Your task to perform on an android device: turn off location Image 0: 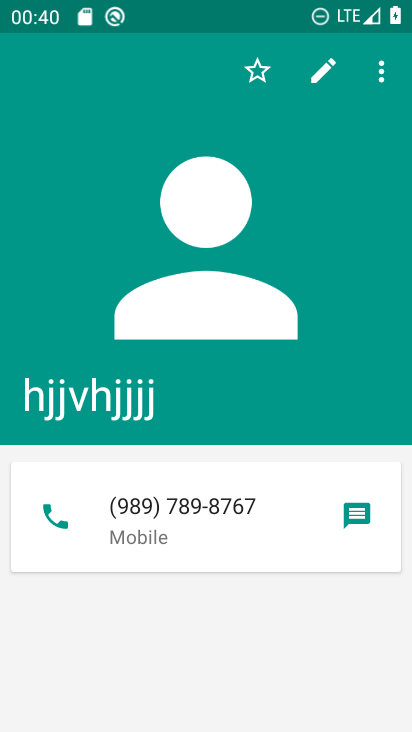
Step 0: press home button
Your task to perform on an android device: turn off location Image 1: 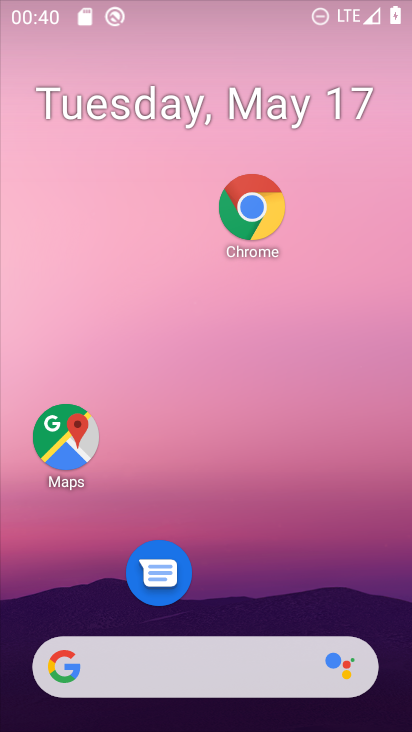
Step 1: drag from (273, 643) to (373, 9)
Your task to perform on an android device: turn off location Image 2: 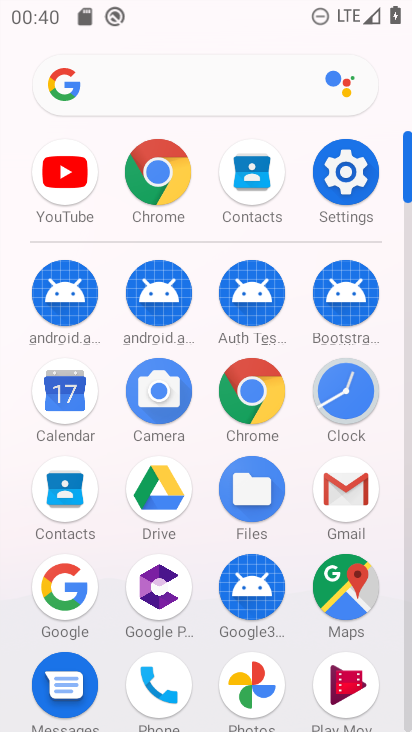
Step 2: click (362, 187)
Your task to perform on an android device: turn off location Image 3: 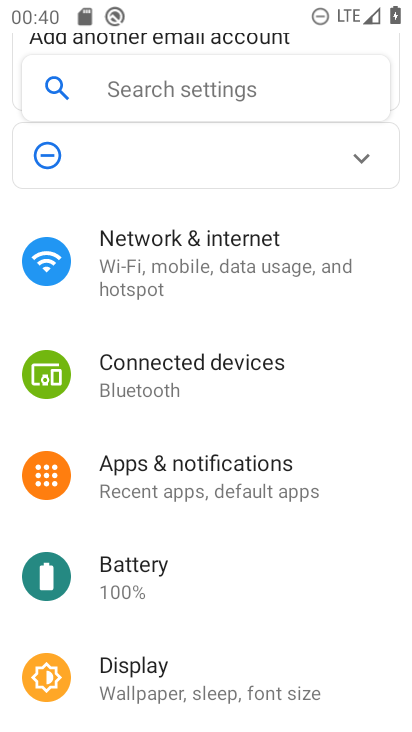
Step 3: drag from (261, 664) to (254, 136)
Your task to perform on an android device: turn off location Image 4: 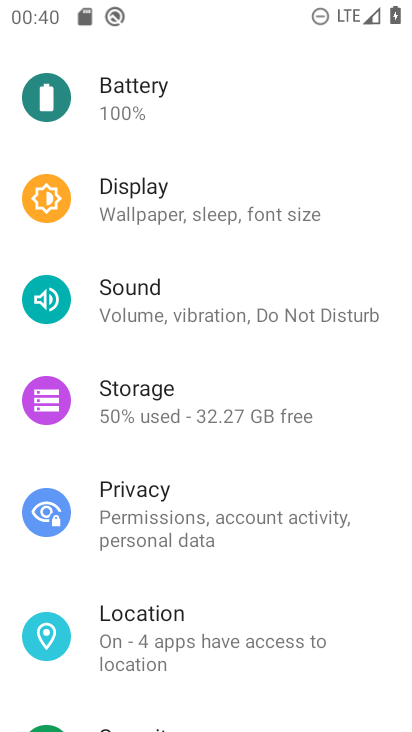
Step 4: click (187, 617)
Your task to perform on an android device: turn off location Image 5: 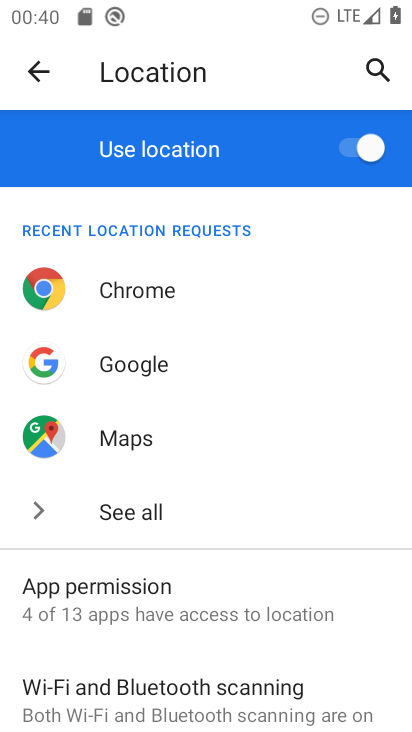
Step 5: click (344, 151)
Your task to perform on an android device: turn off location Image 6: 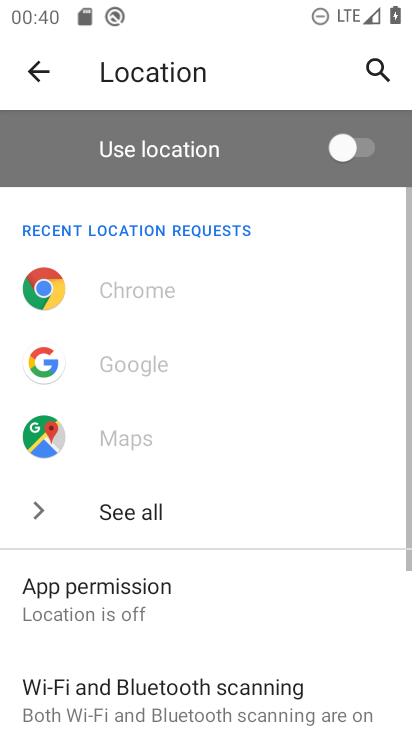
Step 6: task complete